Your task to perform on an android device: turn off priority inbox in the gmail app Image 0: 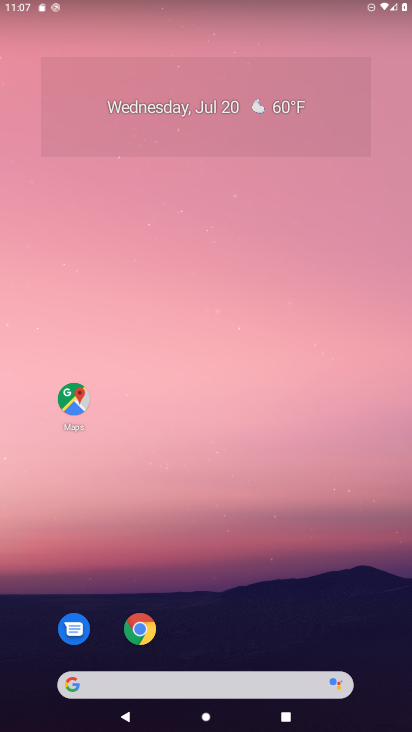
Step 0: drag from (206, 611) to (206, 134)
Your task to perform on an android device: turn off priority inbox in the gmail app Image 1: 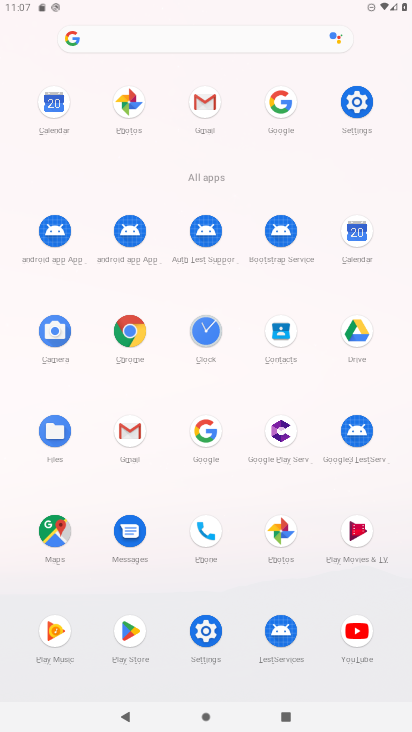
Step 1: click (198, 92)
Your task to perform on an android device: turn off priority inbox in the gmail app Image 2: 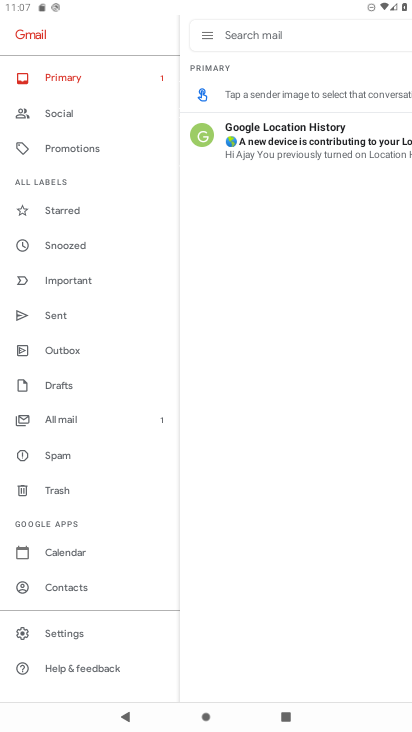
Step 2: click (102, 635)
Your task to perform on an android device: turn off priority inbox in the gmail app Image 3: 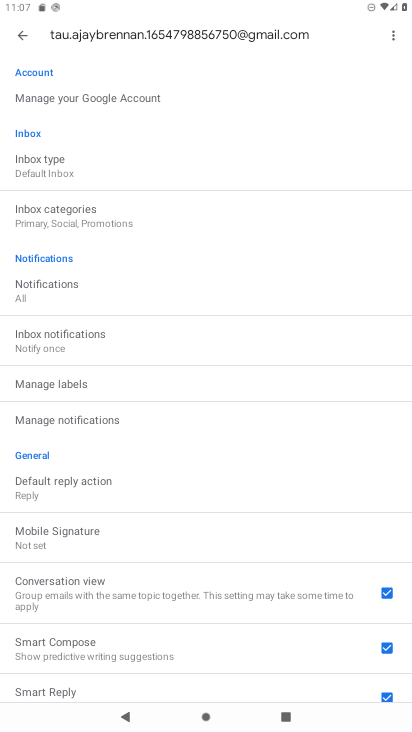
Step 3: click (85, 166)
Your task to perform on an android device: turn off priority inbox in the gmail app Image 4: 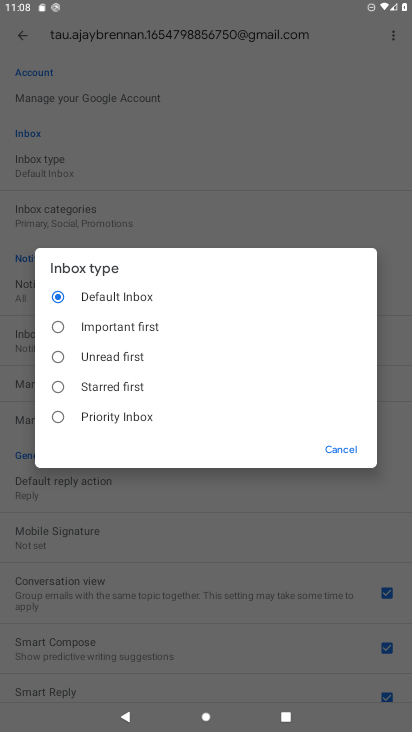
Step 4: task complete